Your task to perform on an android device: Show me popular videos on Youtube Image 0: 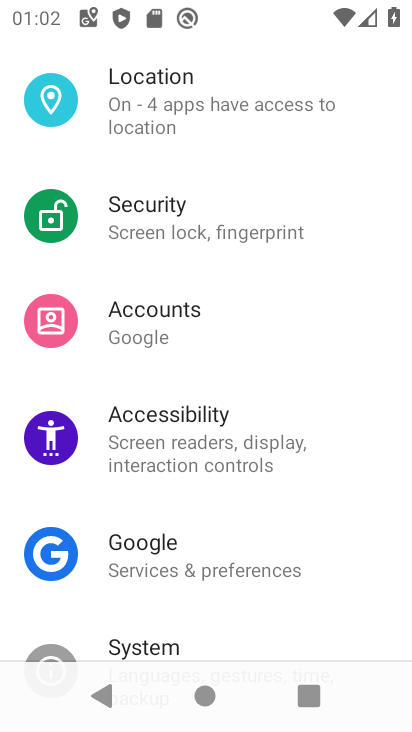
Step 0: press home button
Your task to perform on an android device: Show me popular videos on Youtube Image 1: 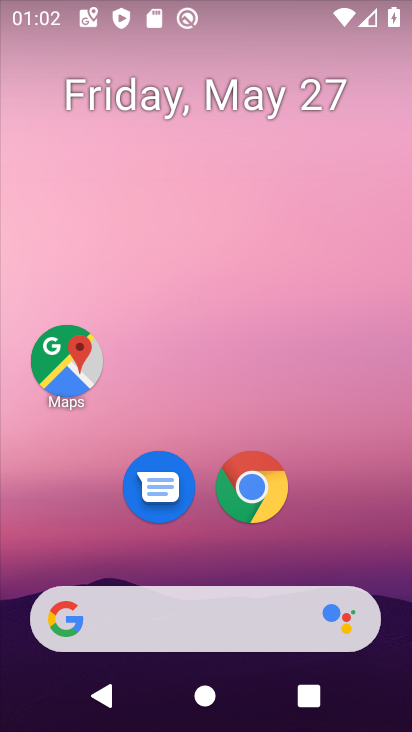
Step 1: drag from (186, 611) to (179, 49)
Your task to perform on an android device: Show me popular videos on Youtube Image 2: 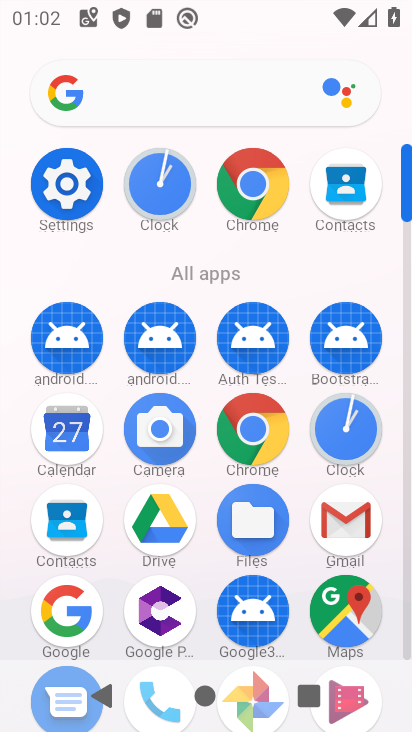
Step 2: drag from (201, 581) to (208, 127)
Your task to perform on an android device: Show me popular videos on Youtube Image 3: 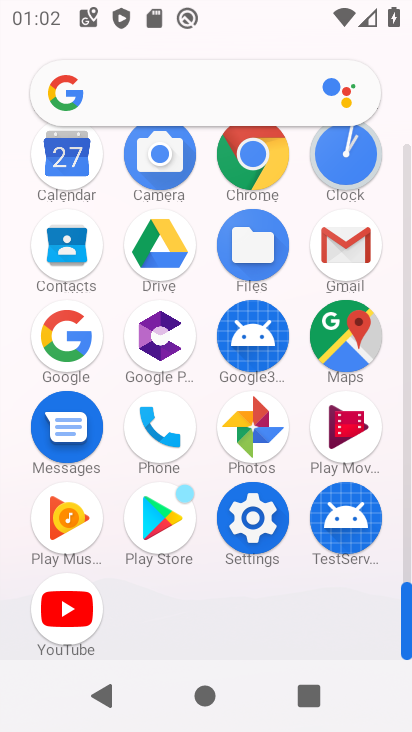
Step 3: click (79, 613)
Your task to perform on an android device: Show me popular videos on Youtube Image 4: 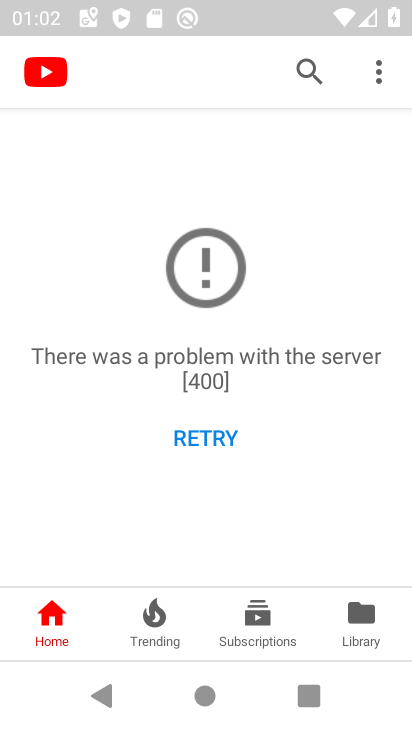
Step 4: click (154, 621)
Your task to perform on an android device: Show me popular videos on Youtube Image 5: 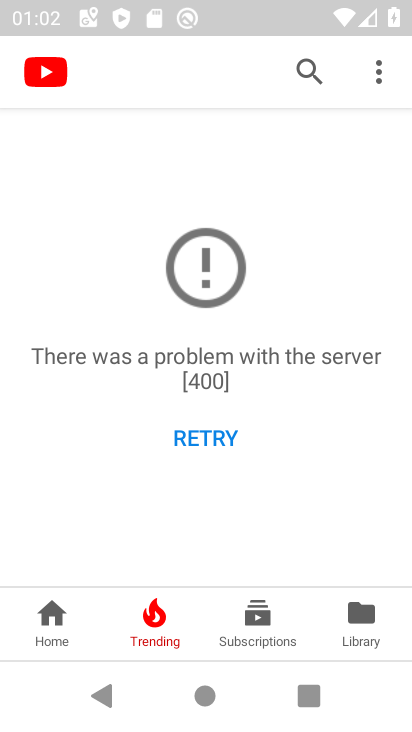
Step 5: task complete